Your task to perform on an android device: Go to Yahoo.com Image 0: 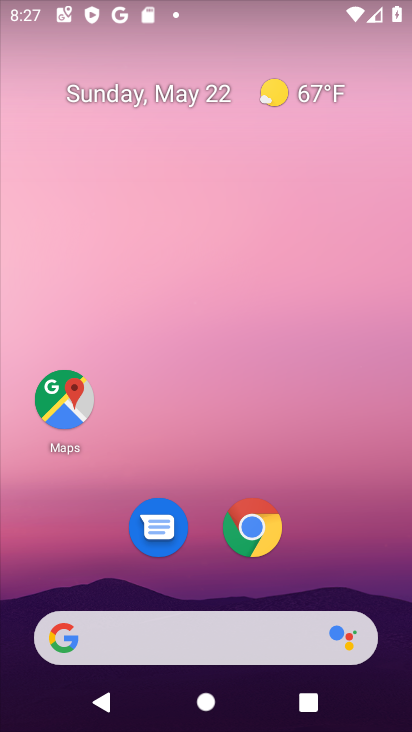
Step 0: press home button
Your task to perform on an android device: Go to Yahoo.com Image 1: 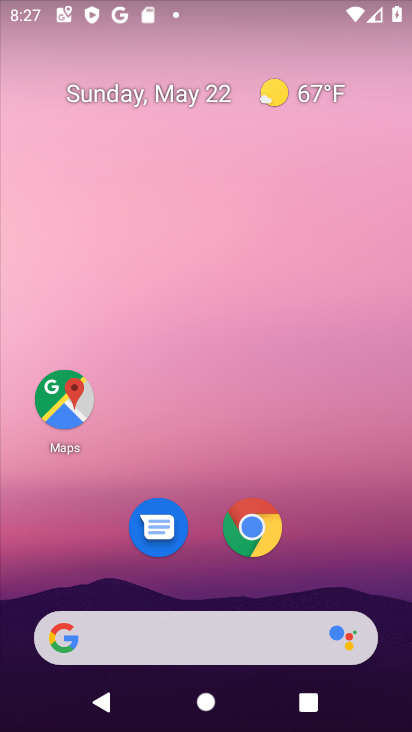
Step 1: click (249, 522)
Your task to perform on an android device: Go to Yahoo.com Image 2: 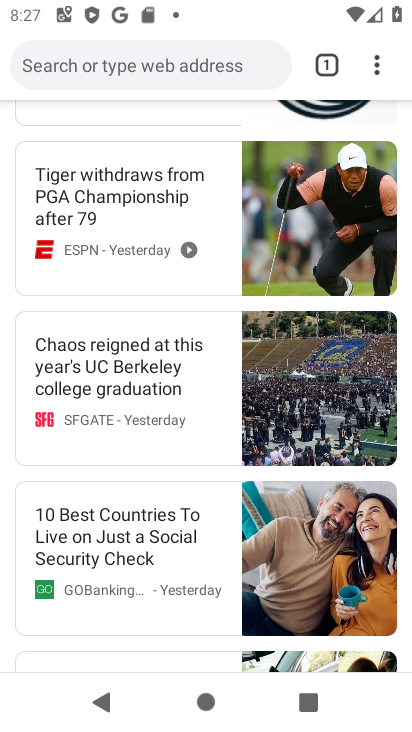
Step 2: click (323, 60)
Your task to perform on an android device: Go to Yahoo.com Image 3: 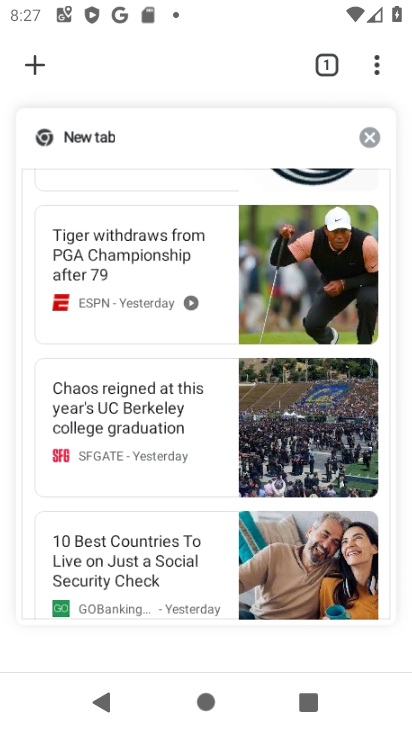
Step 3: click (368, 139)
Your task to perform on an android device: Go to Yahoo.com Image 4: 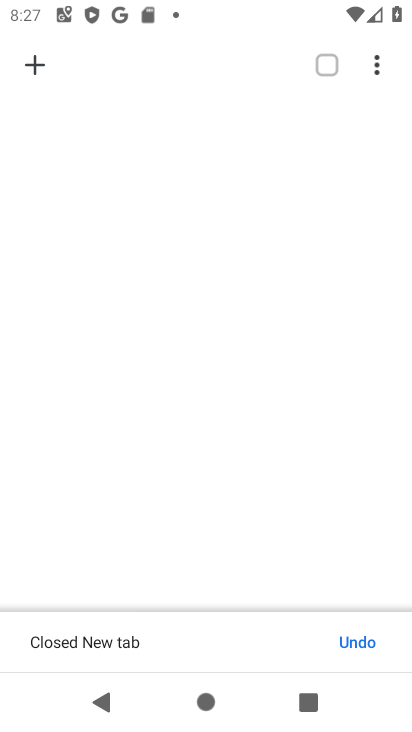
Step 4: click (40, 66)
Your task to perform on an android device: Go to Yahoo.com Image 5: 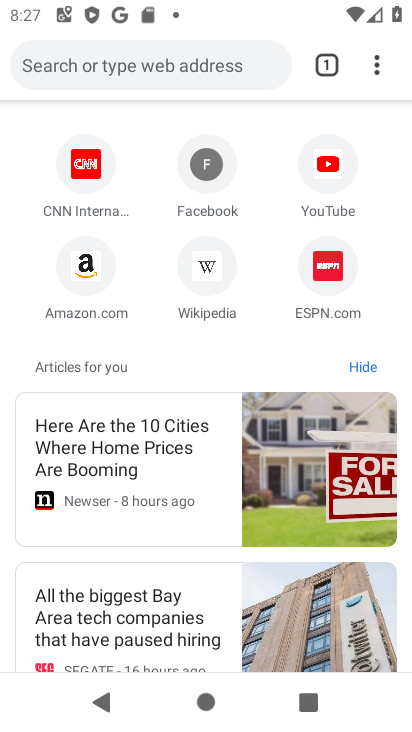
Step 5: click (125, 60)
Your task to perform on an android device: Go to Yahoo.com Image 6: 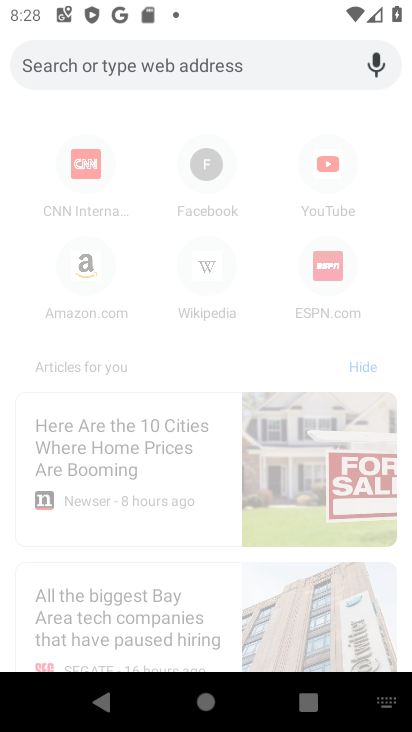
Step 6: type "yahoo.com"
Your task to perform on an android device: Go to Yahoo.com Image 7: 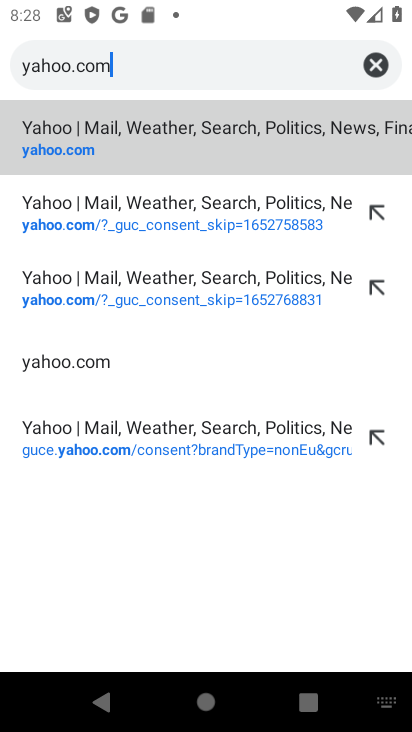
Step 7: click (103, 139)
Your task to perform on an android device: Go to Yahoo.com Image 8: 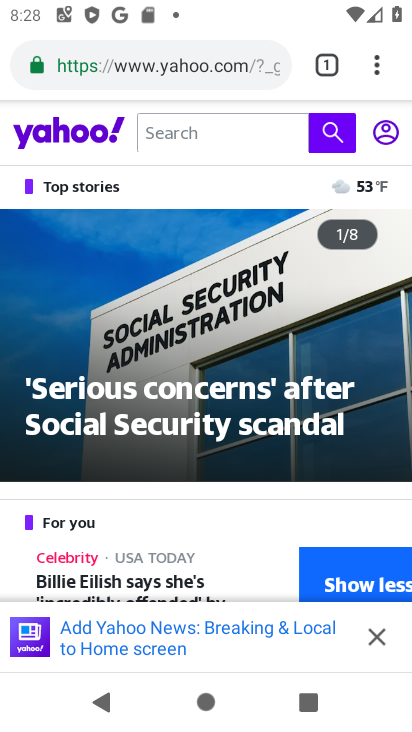
Step 8: click (378, 639)
Your task to perform on an android device: Go to Yahoo.com Image 9: 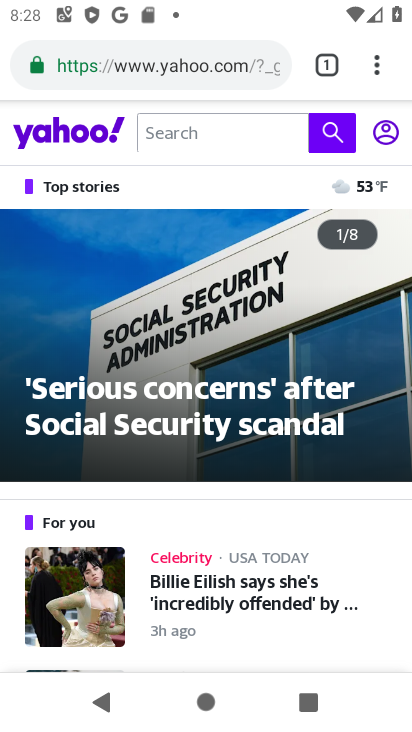
Step 9: task complete